Your task to perform on an android device: install app "McDonald's" Image 0: 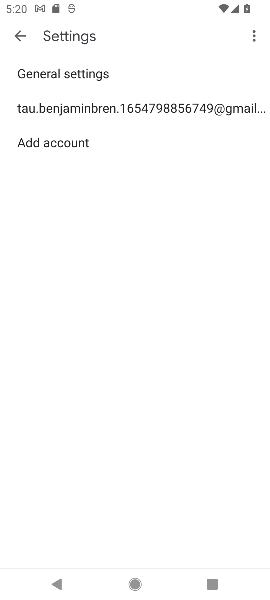
Step 0: press home button
Your task to perform on an android device: install app "McDonald's" Image 1: 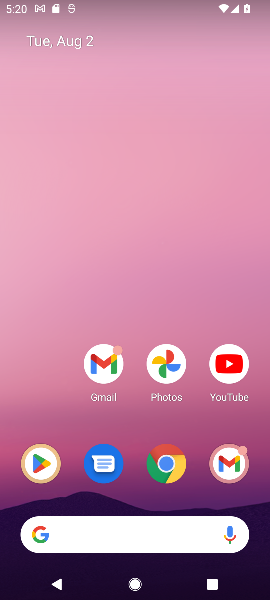
Step 1: click (41, 458)
Your task to perform on an android device: install app "McDonald's" Image 2: 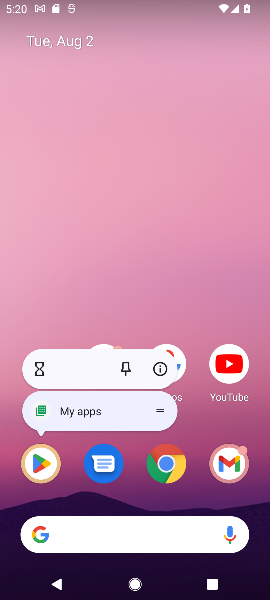
Step 2: click (47, 454)
Your task to perform on an android device: install app "McDonald's" Image 3: 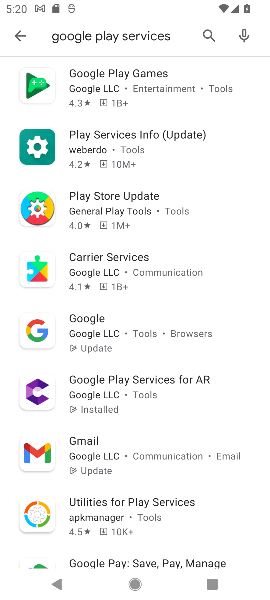
Step 3: click (208, 27)
Your task to perform on an android device: install app "McDonald's" Image 4: 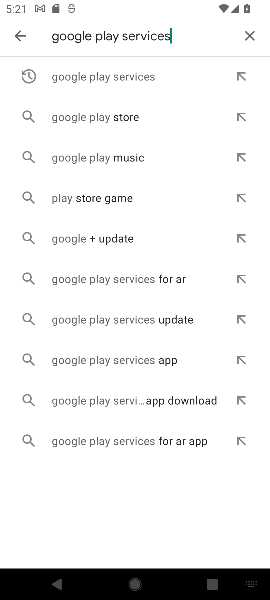
Step 4: type "McDonald's"
Your task to perform on an android device: install app "McDonald's" Image 5: 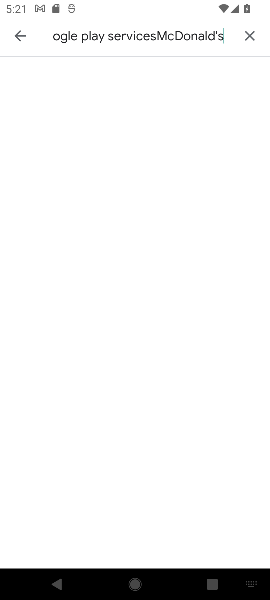
Step 5: click (250, 30)
Your task to perform on an android device: install app "McDonald's" Image 6: 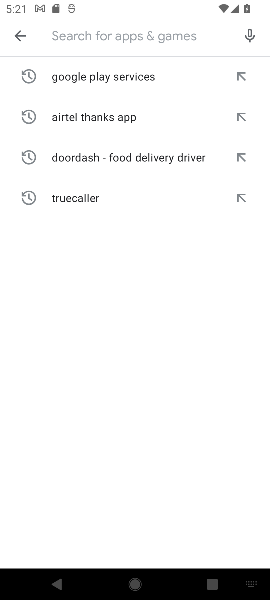
Step 6: type "McDonald's"
Your task to perform on an android device: install app "McDonald's" Image 7: 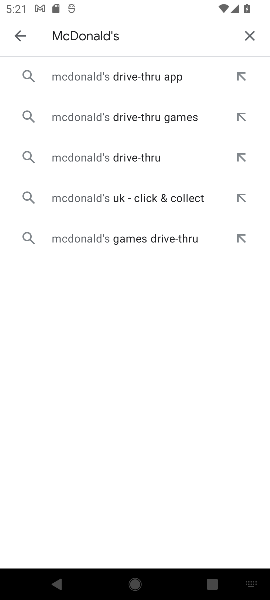
Step 7: click (118, 77)
Your task to perform on an android device: install app "McDonald's" Image 8: 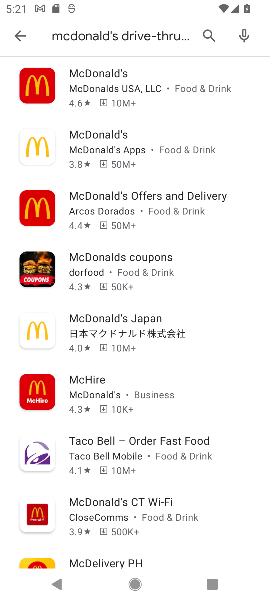
Step 8: click (120, 77)
Your task to perform on an android device: install app "McDonald's" Image 9: 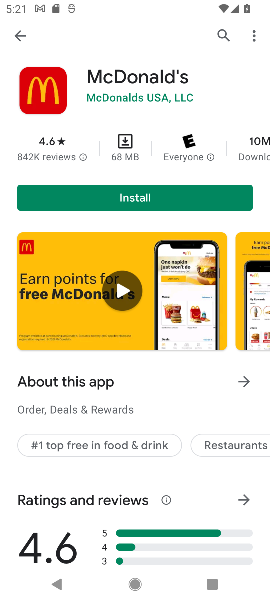
Step 9: click (175, 200)
Your task to perform on an android device: install app "McDonald's" Image 10: 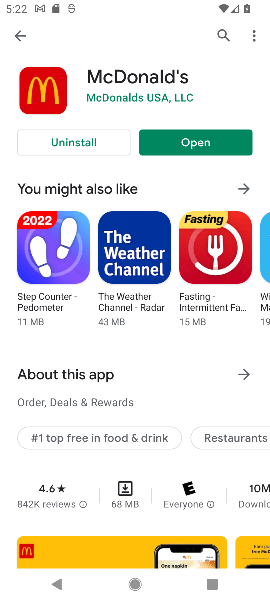
Step 10: task complete